Your task to perform on an android device: Open Google Chrome and open the bookmarks view Image 0: 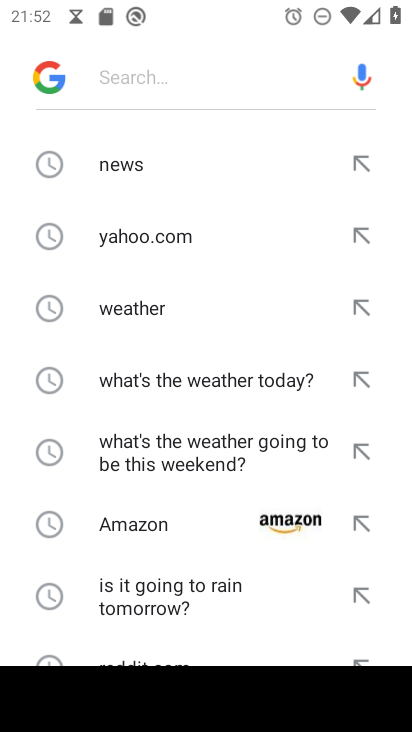
Step 0: press home button
Your task to perform on an android device: Open Google Chrome and open the bookmarks view Image 1: 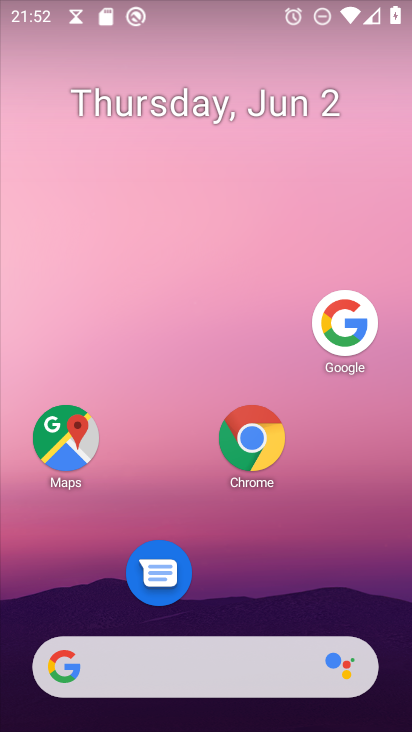
Step 1: click (258, 451)
Your task to perform on an android device: Open Google Chrome and open the bookmarks view Image 2: 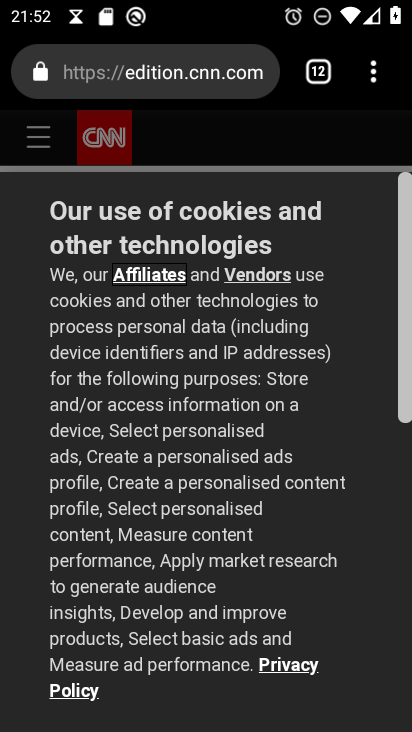
Step 2: task complete